Your task to perform on an android device: Open the calendar and show me this week's events? Image 0: 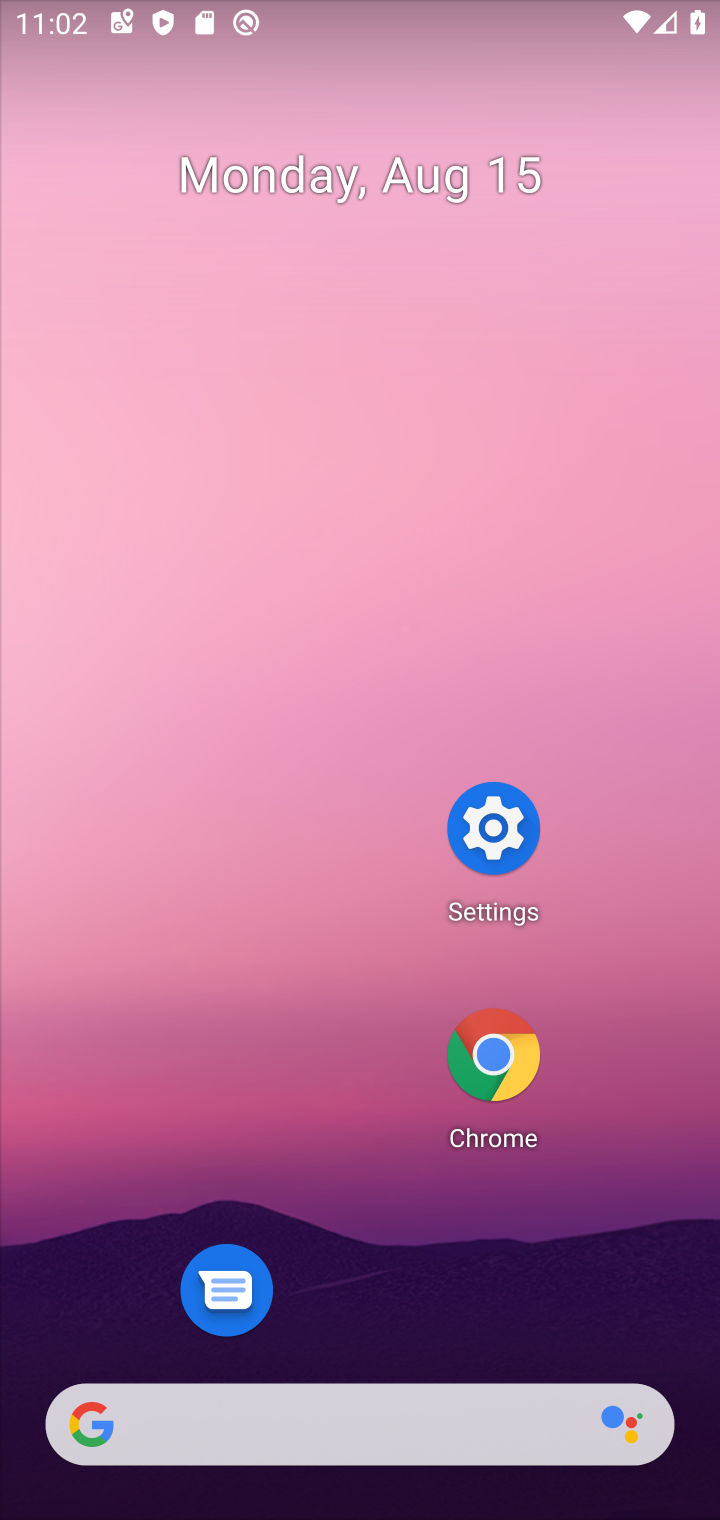
Step 0: press home button
Your task to perform on an android device: Open the calendar and show me this week's events? Image 1: 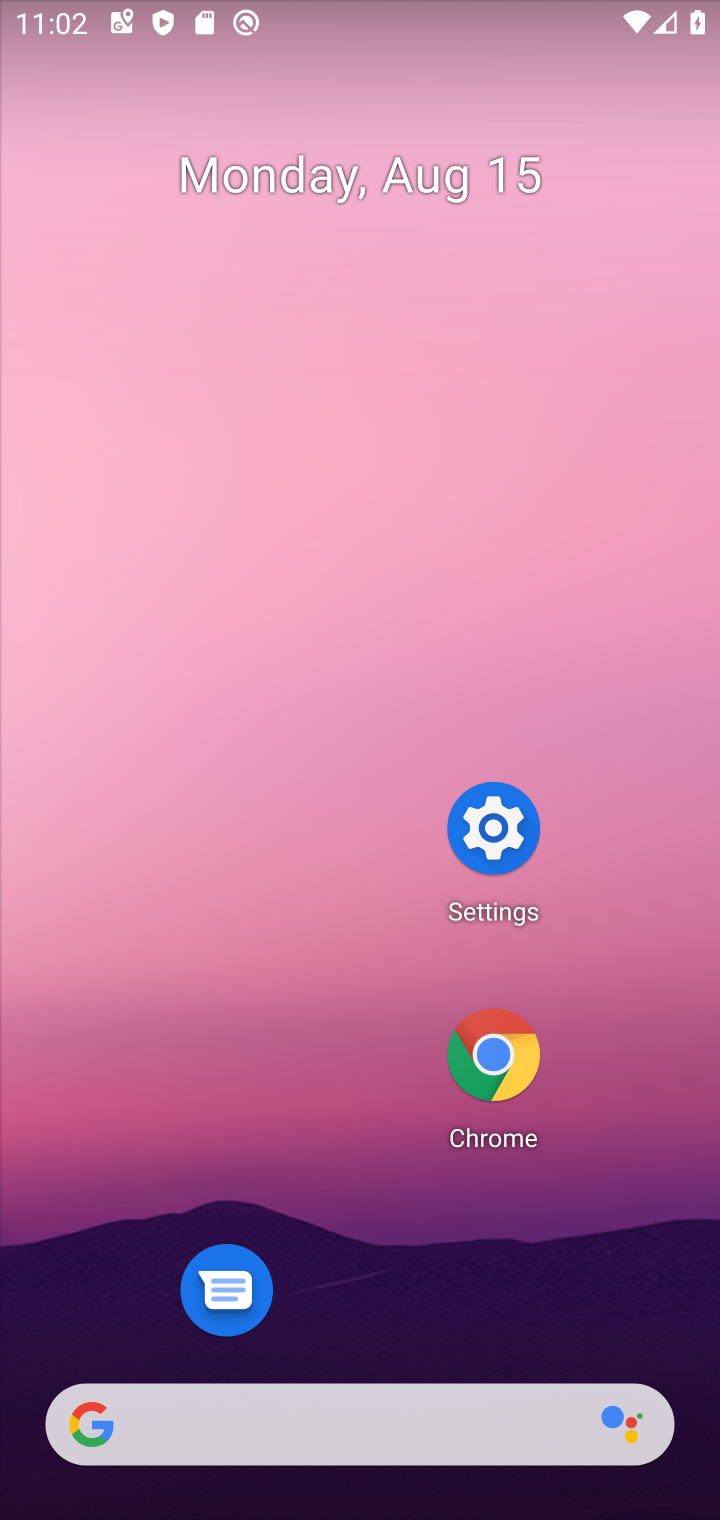
Step 1: drag from (420, 1126) to (598, 312)
Your task to perform on an android device: Open the calendar and show me this week's events? Image 2: 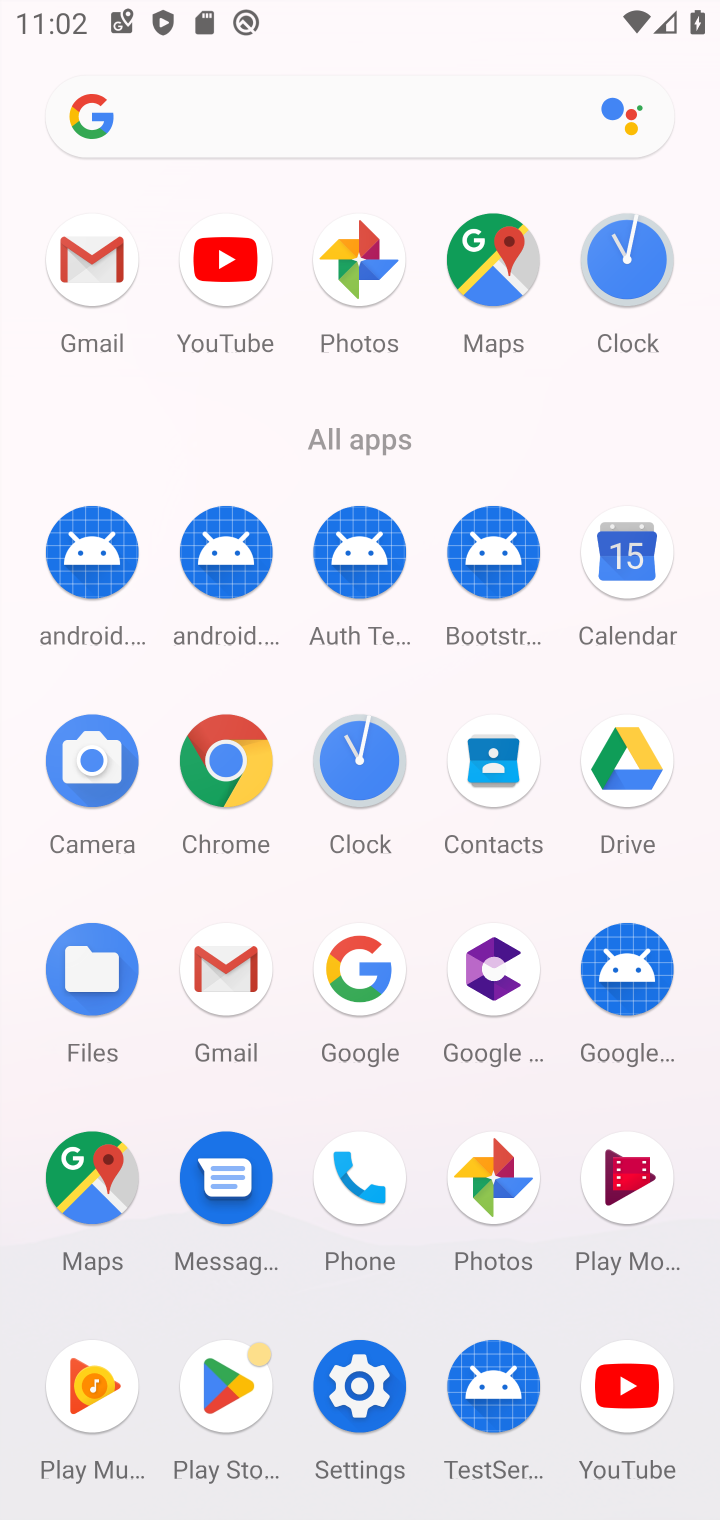
Step 2: click (621, 566)
Your task to perform on an android device: Open the calendar and show me this week's events? Image 3: 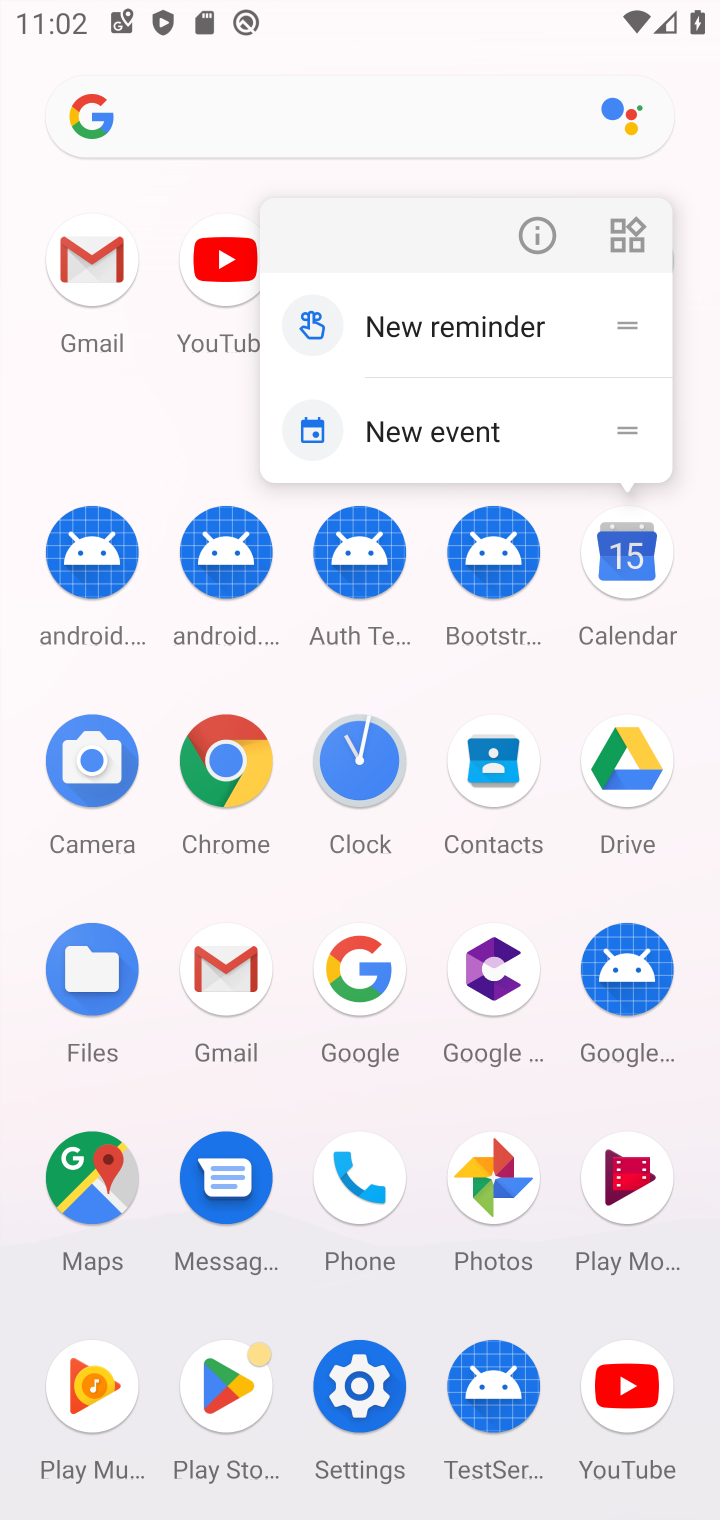
Step 3: click (621, 566)
Your task to perform on an android device: Open the calendar and show me this week's events? Image 4: 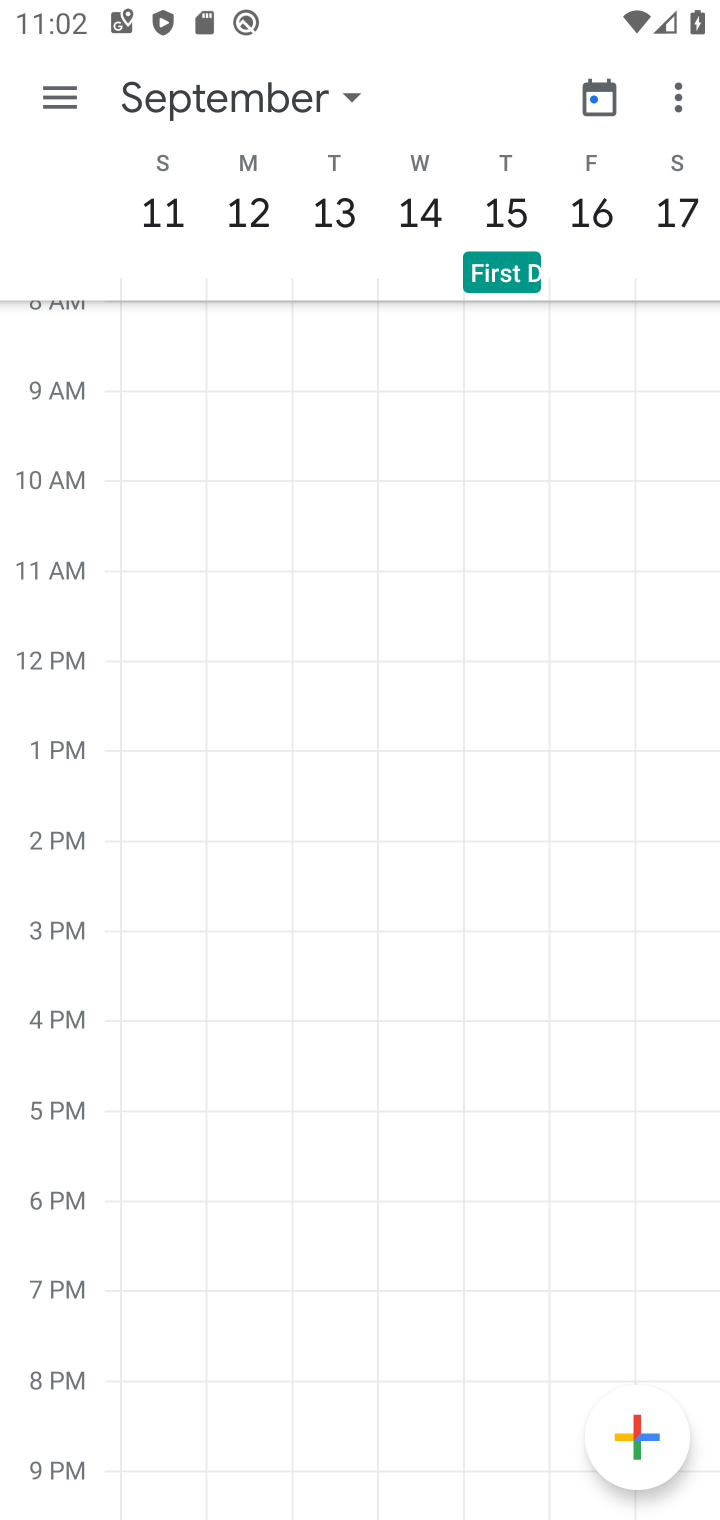
Step 4: click (243, 96)
Your task to perform on an android device: Open the calendar and show me this week's events? Image 5: 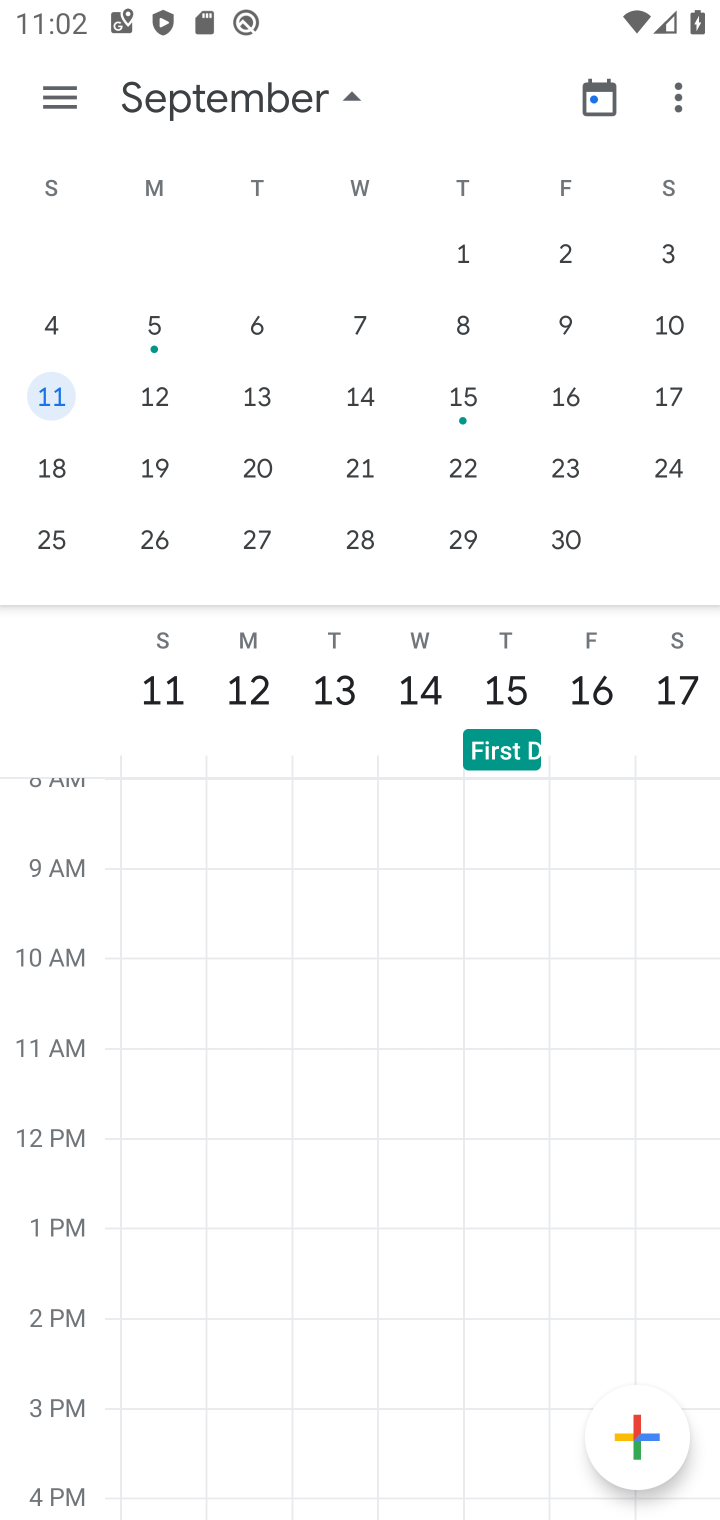
Step 5: drag from (101, 284) to (660, 181)
Your task to perform on an android device: Open the calendar and show me this week's events? Image 6: 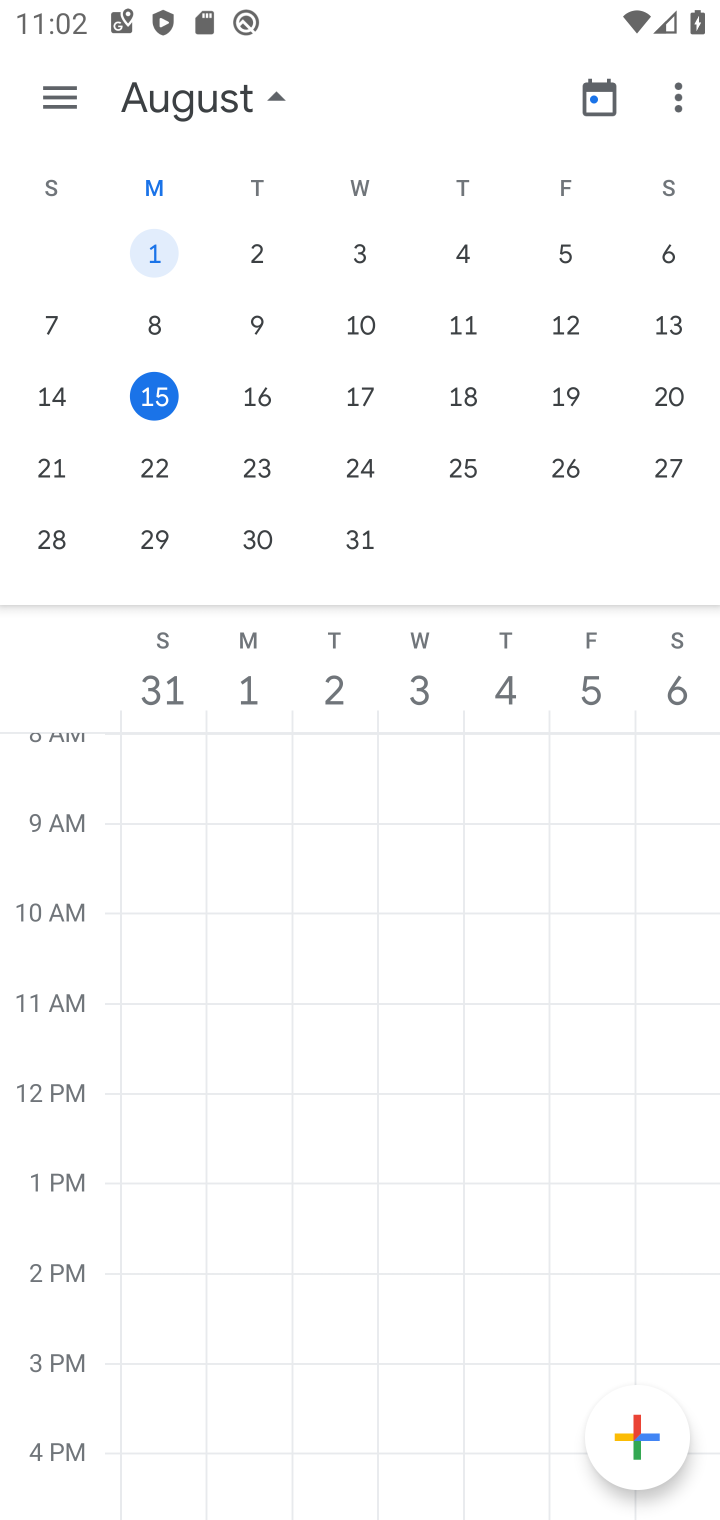
Step 6: click (158, 389)
Your task to perform on an android device: Open the calendar and show me this week's events? Image 7: 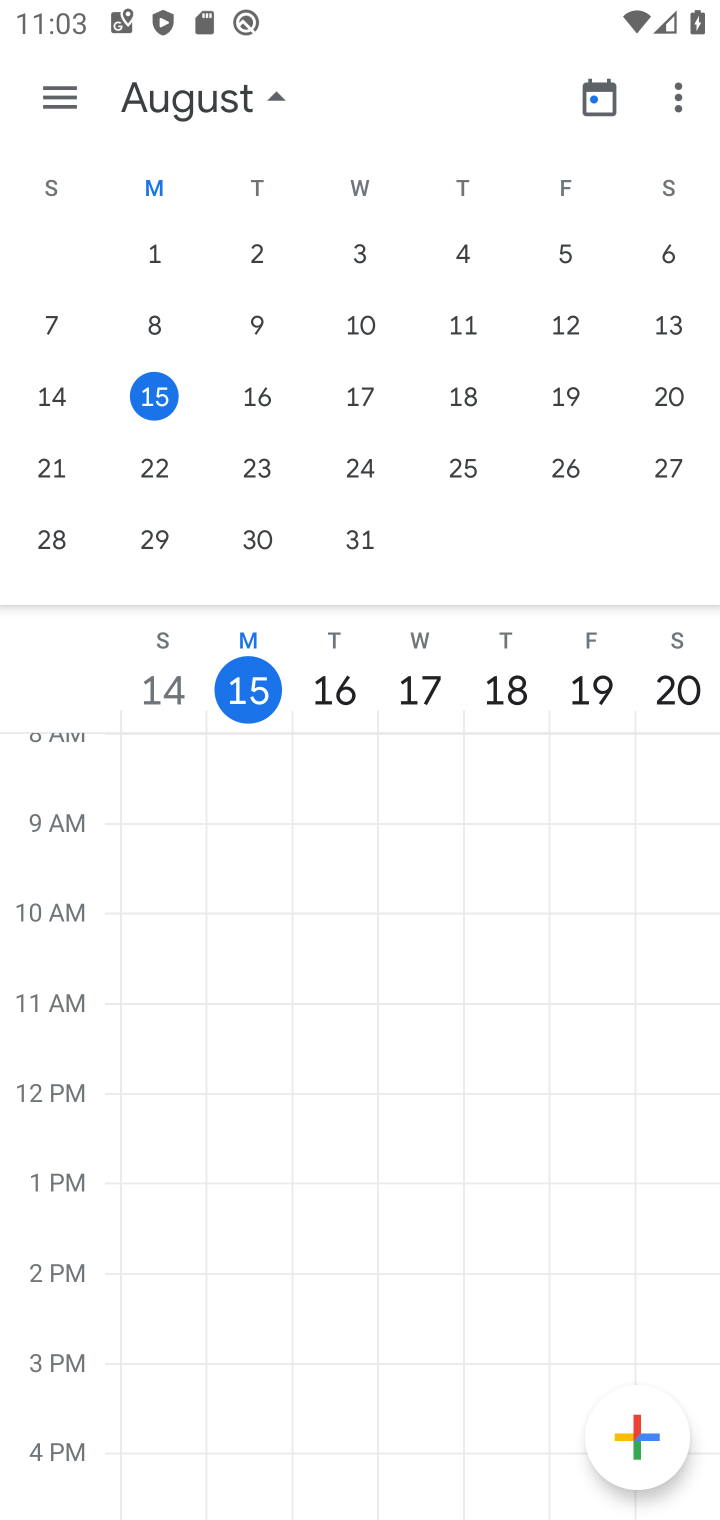
Step 7: click (50, 103)
Your task to perform on an android device: Open the calendar and show me this week's events? Image 8: 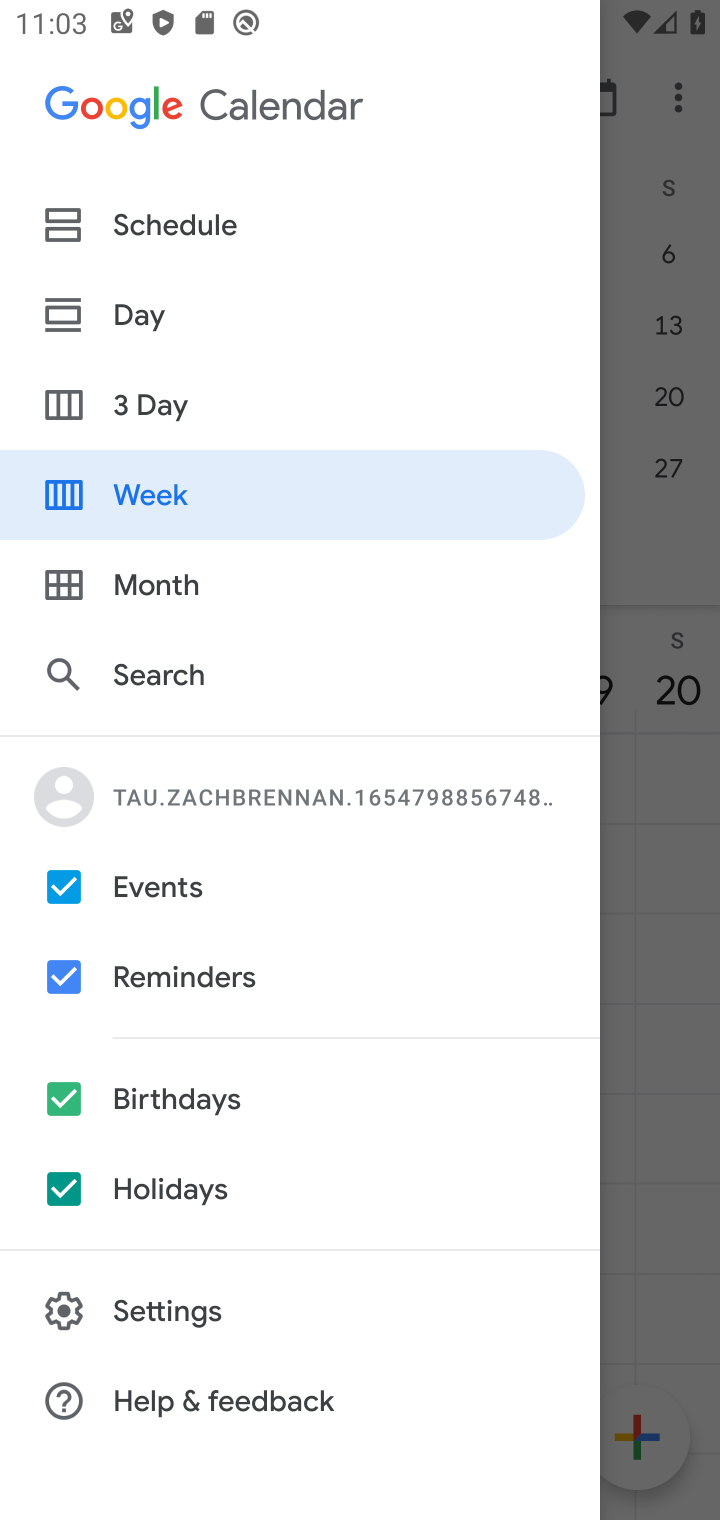
Step 8: click (181, 482)
Your task to perform on an android device: Open the calendar and show me this week's events? Image 9: 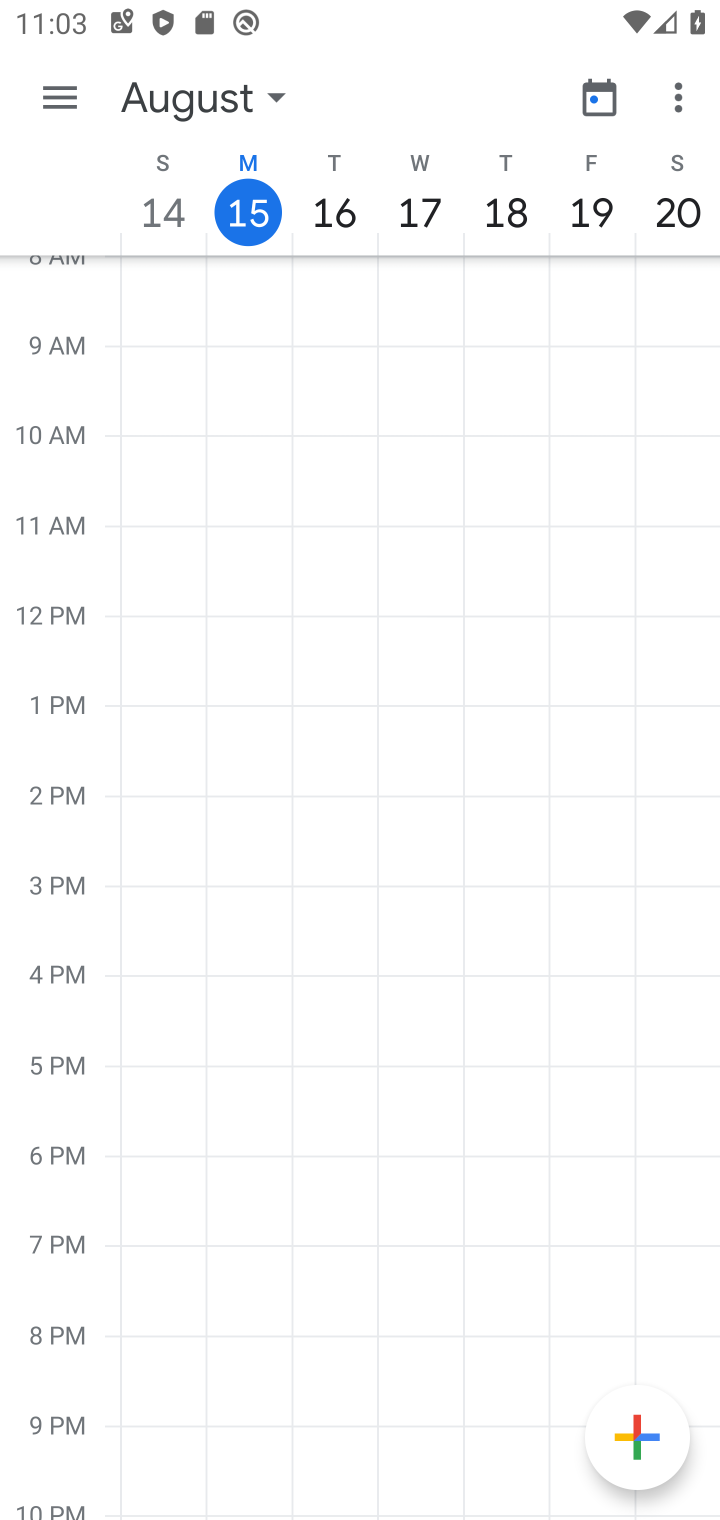
Step 9: click (38, 86)
Your task to perform on an android device: Open the calendar and show me this week's events? Image 10: 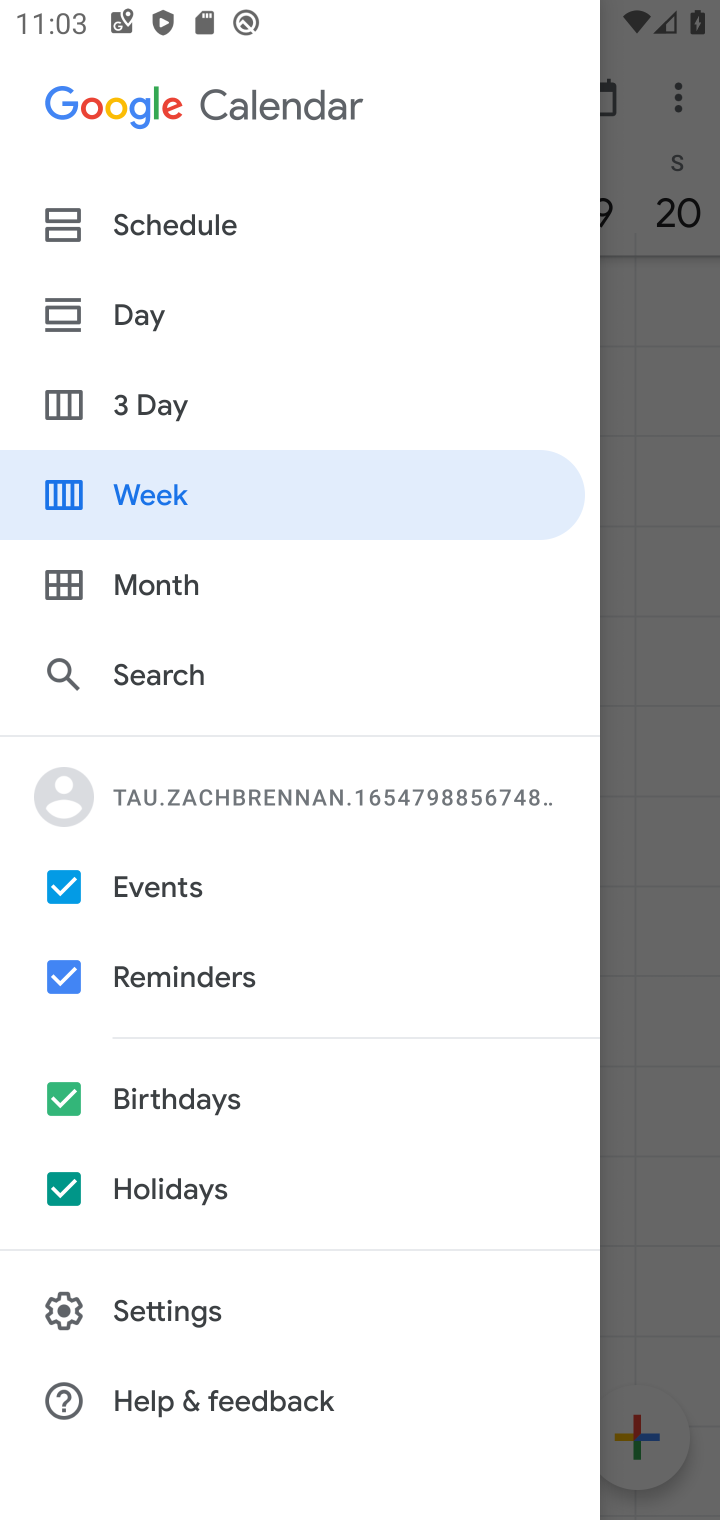
Step 10: click (183, 224)
Your task to perform on an android device: Open the calendar and show me this week's events? Image 11: 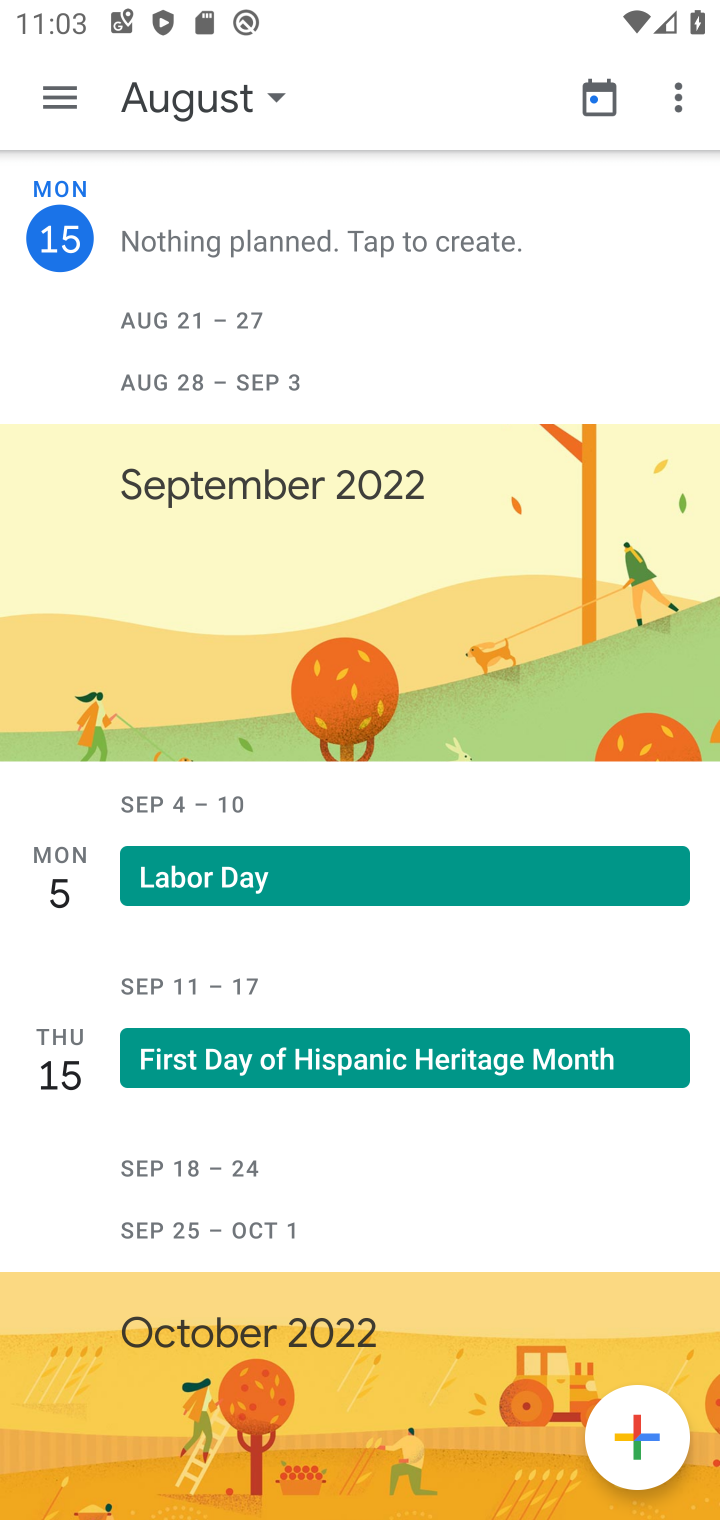
Step 11: task complete